Your task to perform on an android device: change the clock display to analog Image 0: 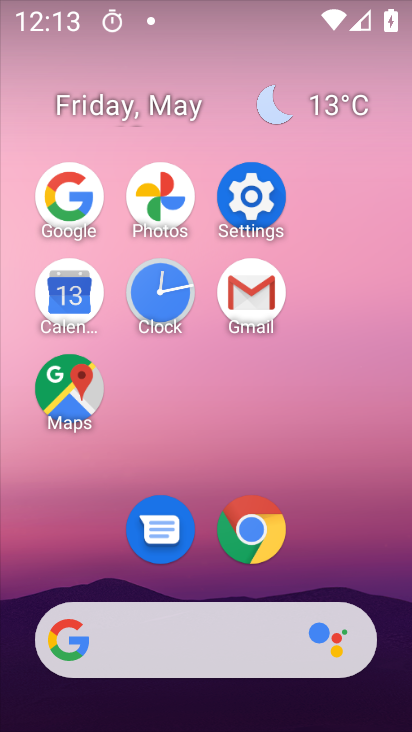
Step 0: click (168, 289)
Your task to perform on an android device: change the clock display to analog Image 1: 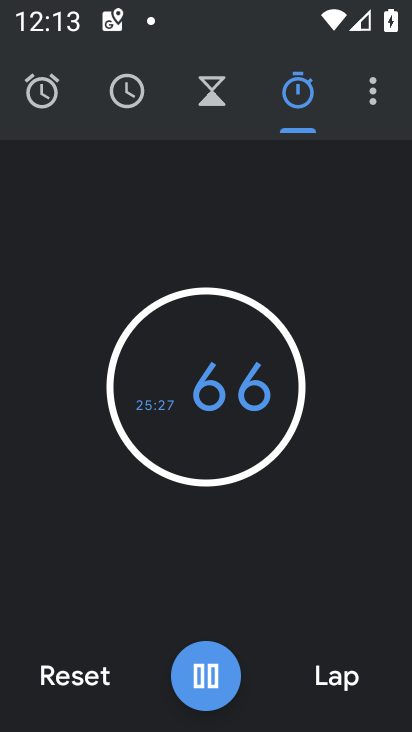
Step 1: click (374, 98)
Your task to perform on an android device: change the clock display to analog Image 2: 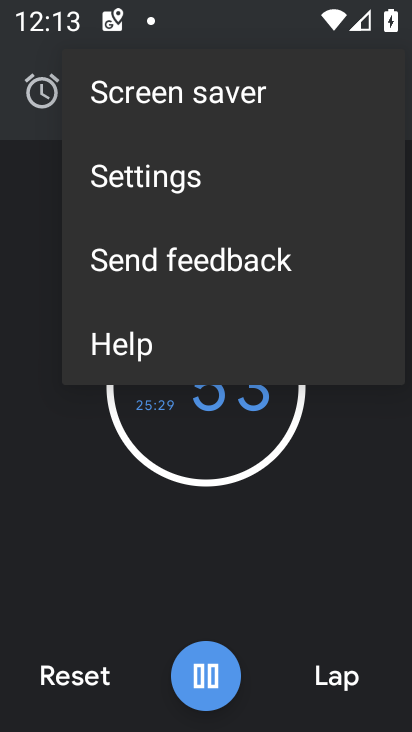
Step 2: click (220, 165)
Your task to perform on an android device: change the clock display to analog Image 3: 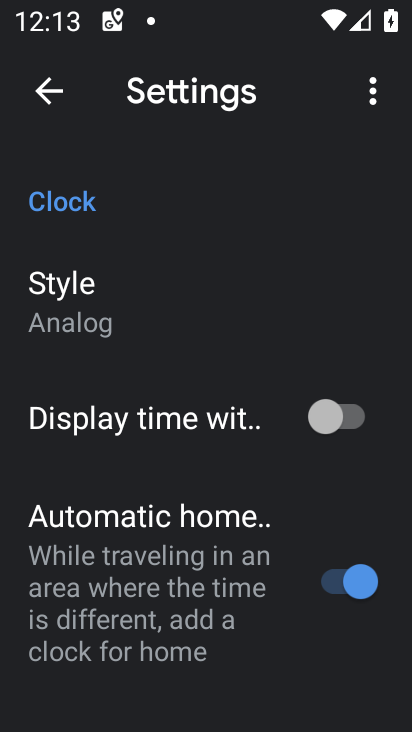
Step 3: task complete